Your task to perform on an android device: Open Android settings Image 0: 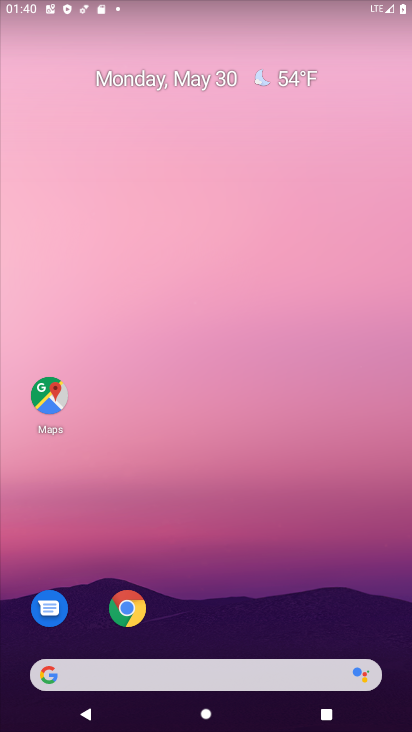
Step 0: drag from (295, 584) to (242, 247)
Your task to perform on an android device: Open Android settings Image 1: 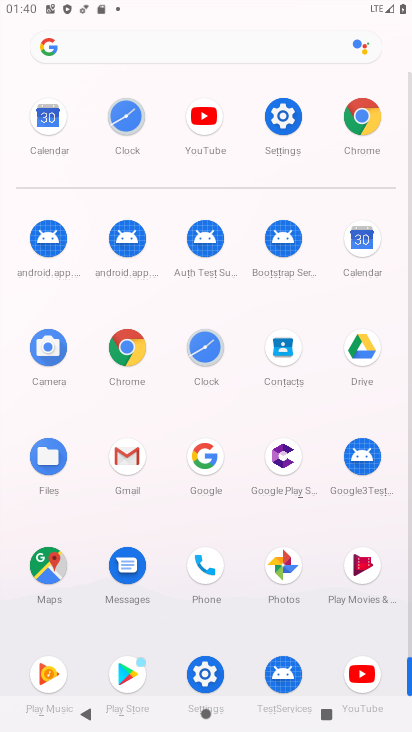
Step 1: click (288, 106)
Your task to perform on an android device: Open Android settings Image 2: 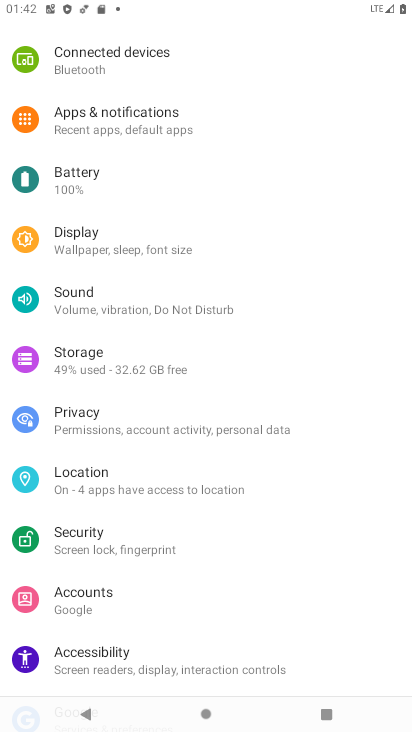
Step 2: task complete